Your task to perform on an android device: Open maps Image 0: 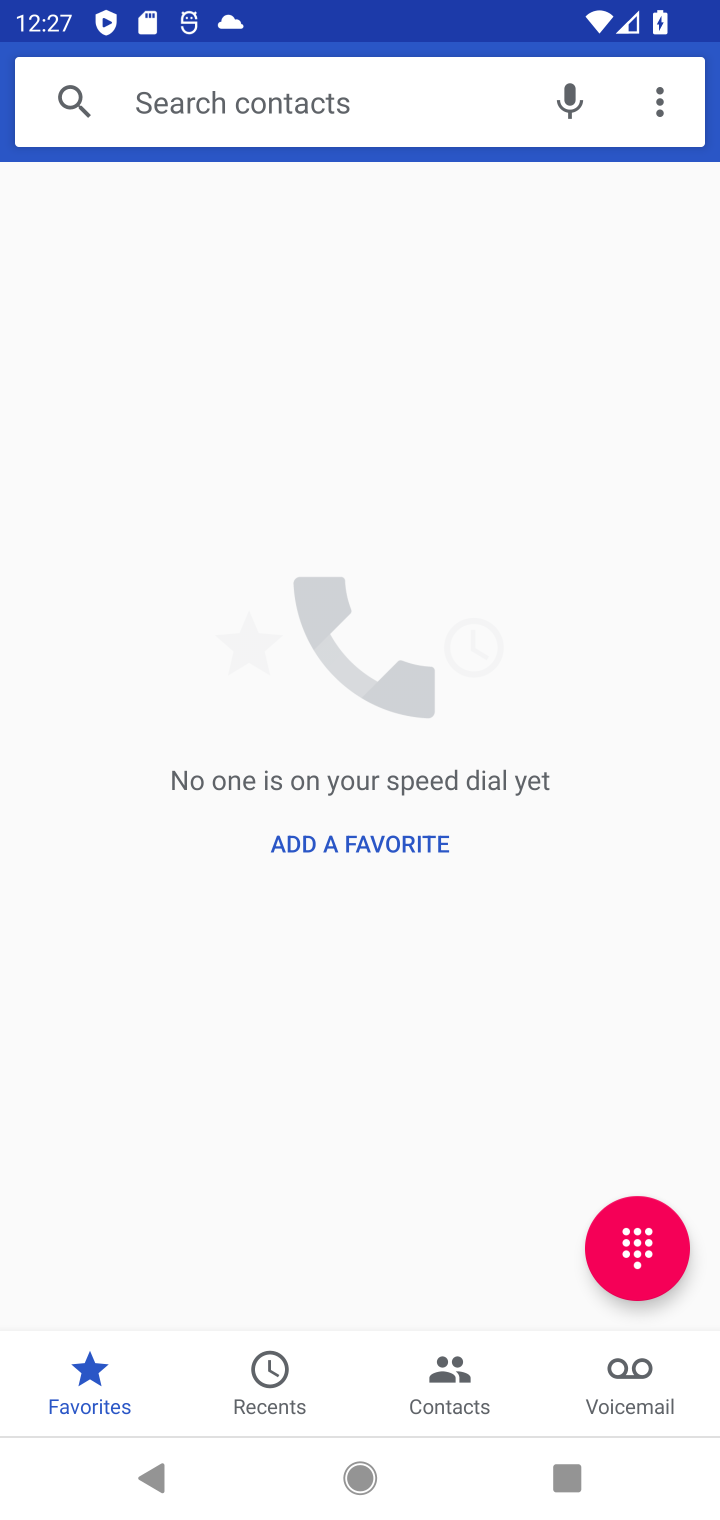
Step 0: press home button
Your task to perform on an android device: Open maps Image 1: 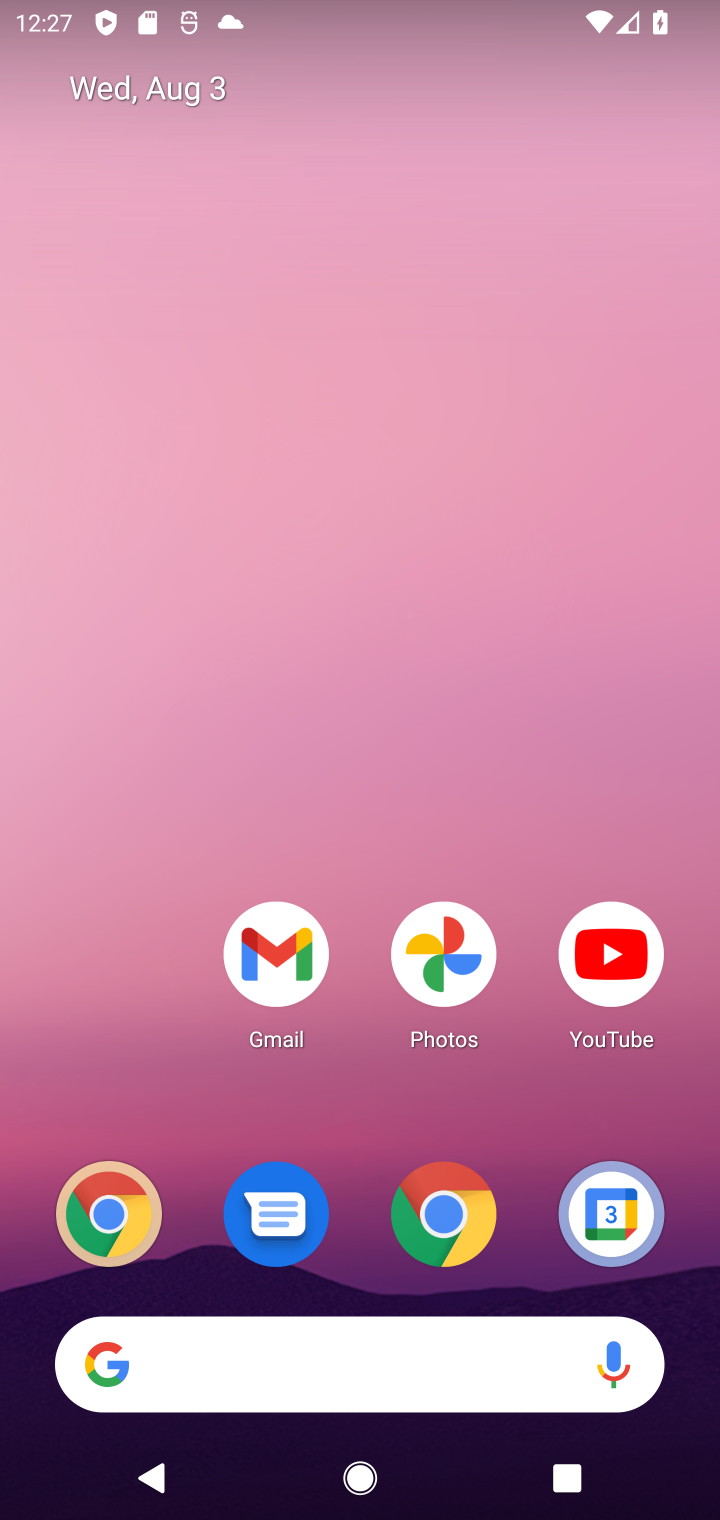
Step 1: drag from (240, 1345) to (297, 18)
Your task to perform on an android device: Open maps Image 2: 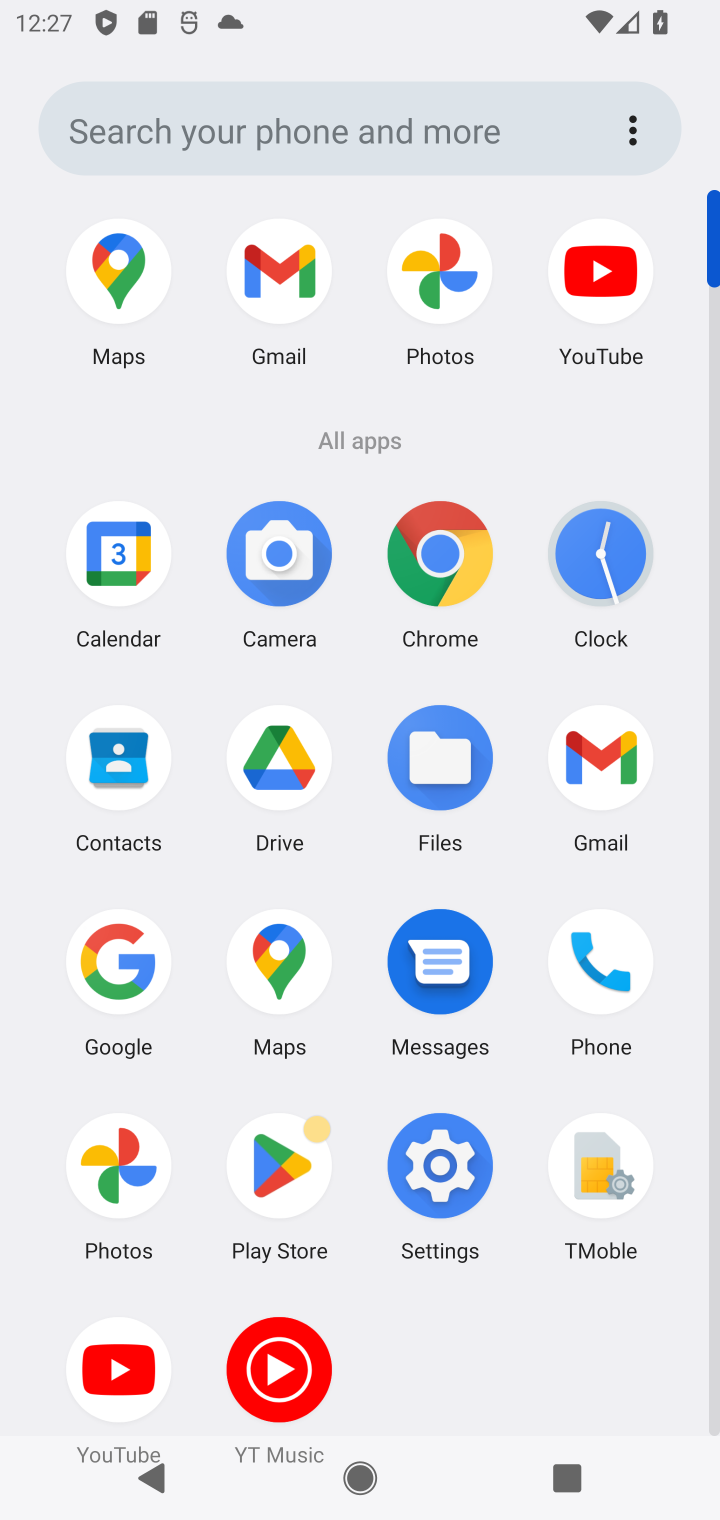
Step 2: click (133, 291)
Your task to perform on an android device: Open maps Image 3: 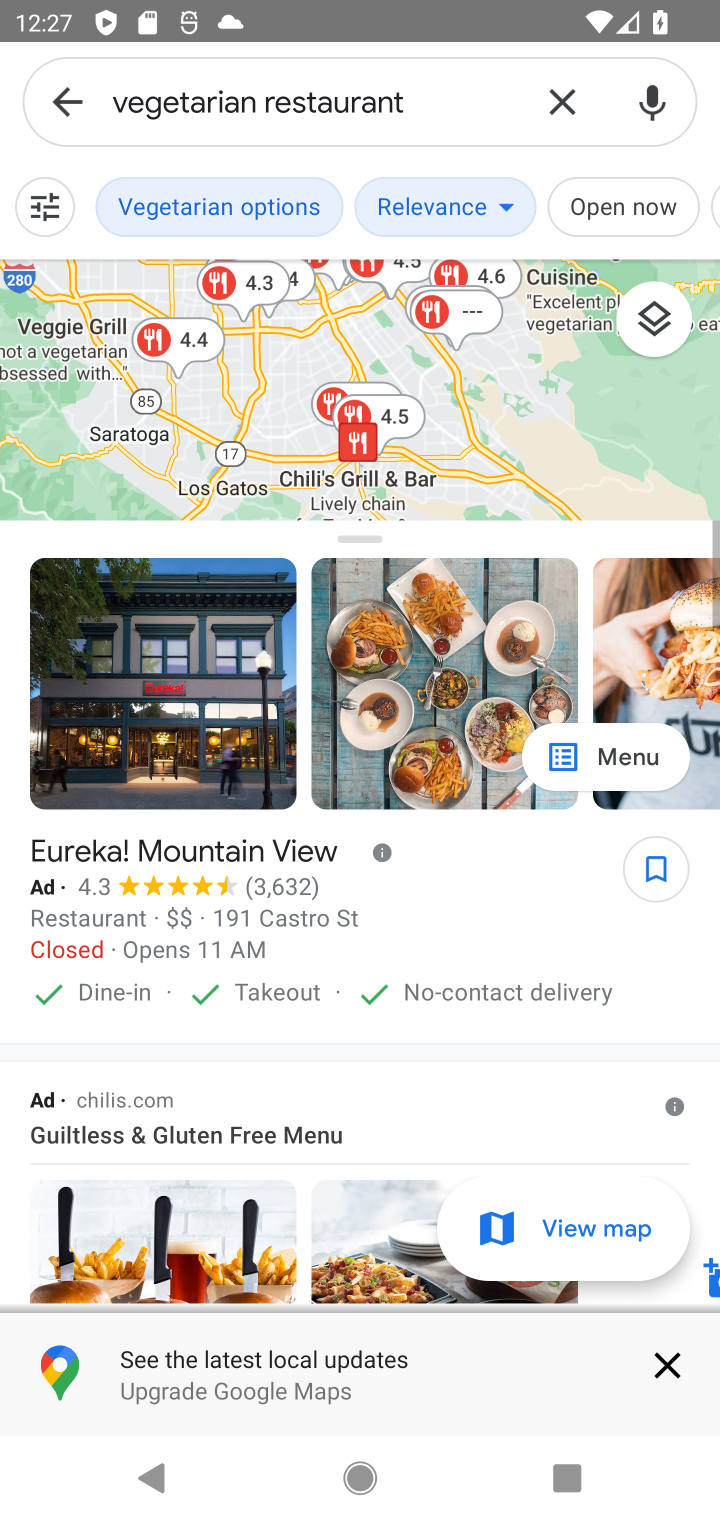
Step 3: task complete